Your task to perform on an android device: Search for vegetarian restaurants on Maps Image 0: 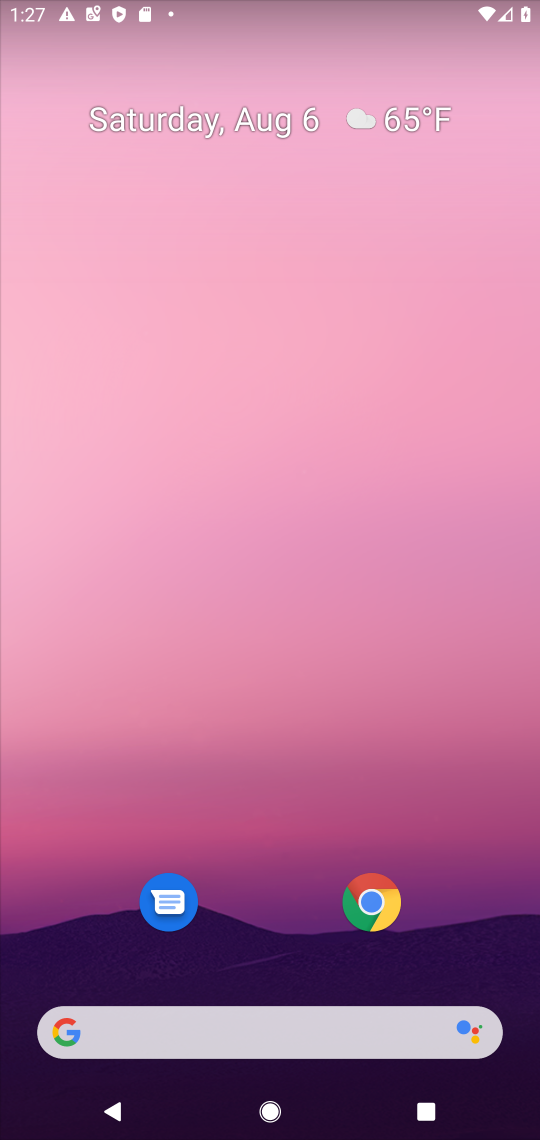
Step 0: drag from (250, 859) to (250, 148)
Your task to perform on an android device: Search for vegetarian restaurants on Maps Image 1: 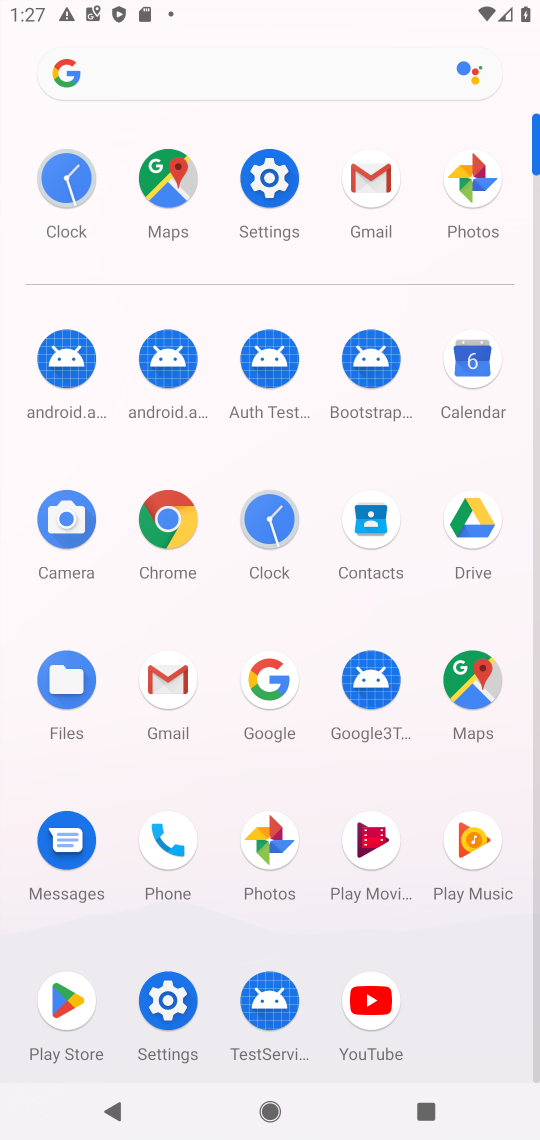
Step 1: click (167, 173)
Your task to perform on an android device: Search for vegetarian restaurants on Maps Image 2: 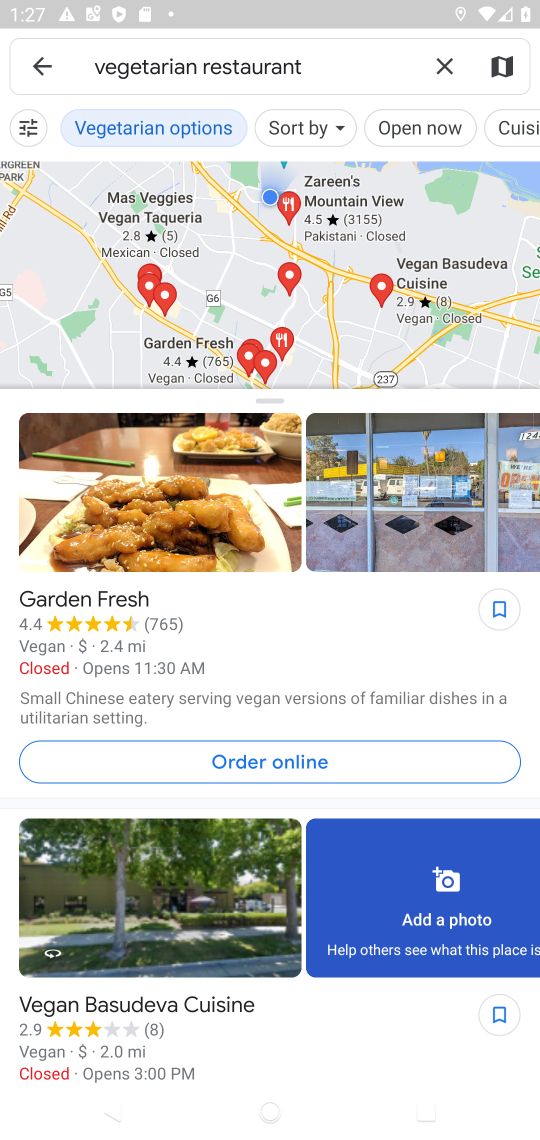
Step 2: task complete